Your task to perform on an android device: turn off picture-in-picture Image 0: 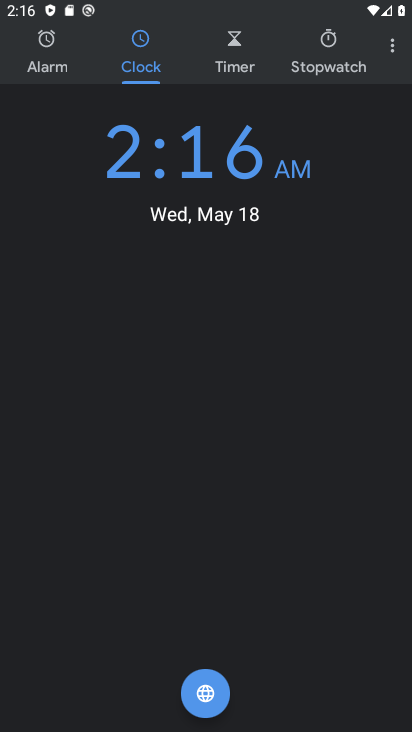
Step 0: press home button
Your task to perform on an android device: turn off picture-in-picture Image 1: 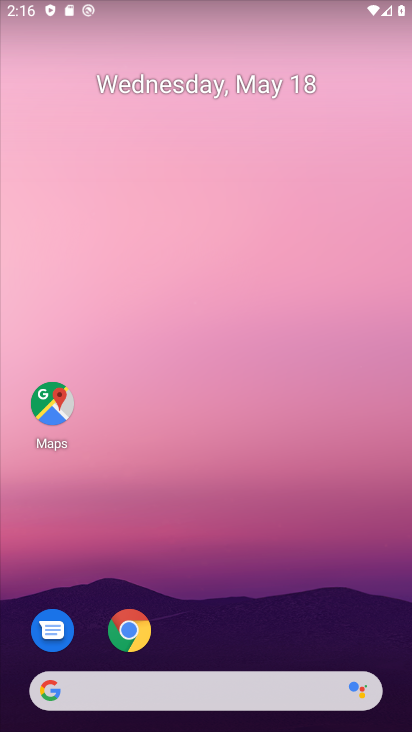
Step 1: click (132, 620)
Your task to perform on an android device: turn off picture-in-picture Image 2: 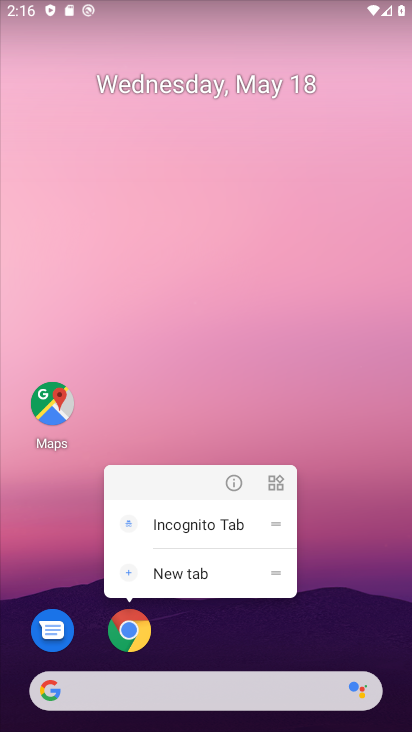
Step 2: click (227, 477)
Your task to perform on an android device: turn off picture-in-picture Image 3: 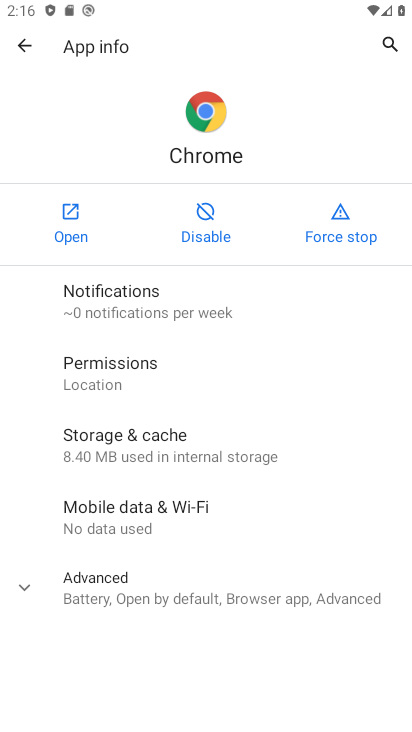
Step 3: click (28, 583)
Your task to perform on an android device: turn off picture-in-picture Image 4: 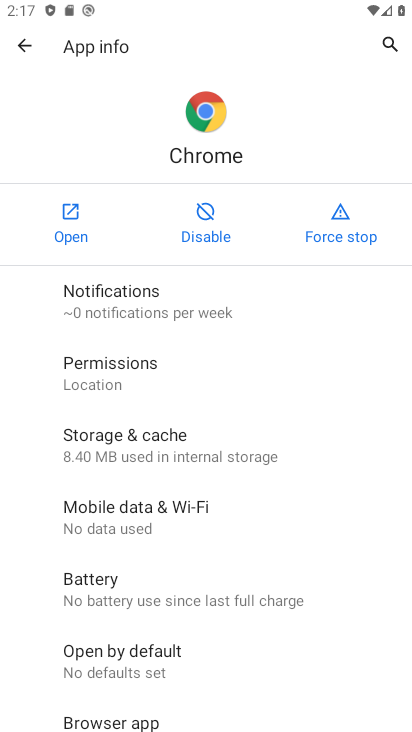
Step 4: drag from (194, 692) to (257, 134)
Your task to perform on an android device: turn off picture-in-picture Image 5: 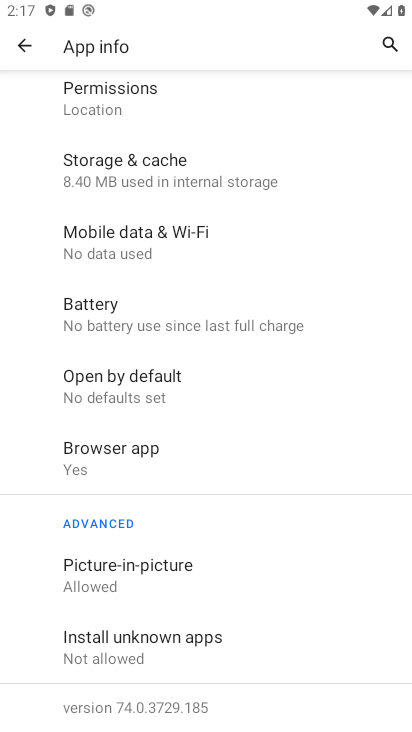
Step 5: click (139, 582)
Your task to perform on an android device: turn off picture-in-picture Image 6: 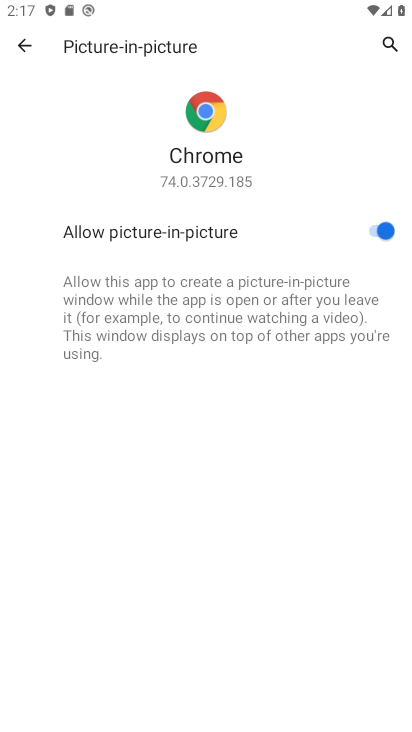
Step 6: click (383, 228)
Your task to perform on an android device: turn off picture-in-picture Image 7: 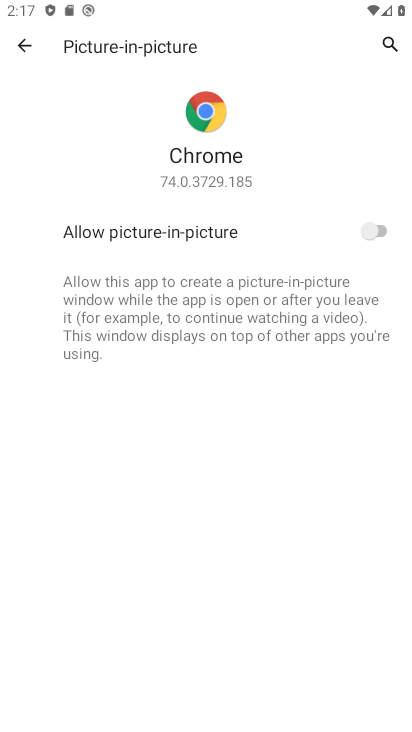
Step 7: task complete